Your task to perform on an android device: Open Google Chrome and open the bookmarks view Image 0: 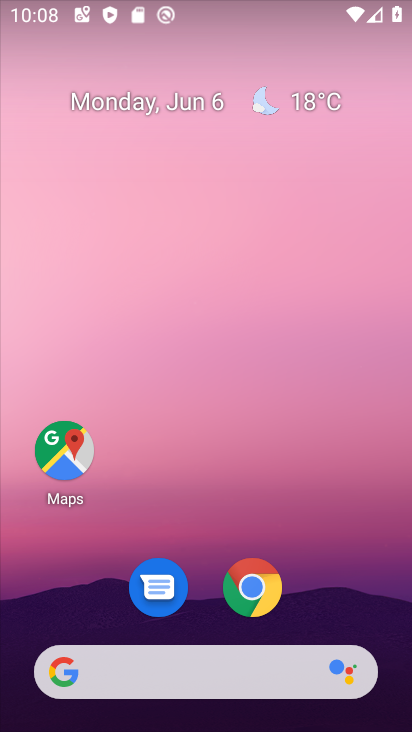
Step 0: click (274, 588)
Your task to perform on an android device: Open Google Chrome and open the bookmarks view Image 1: 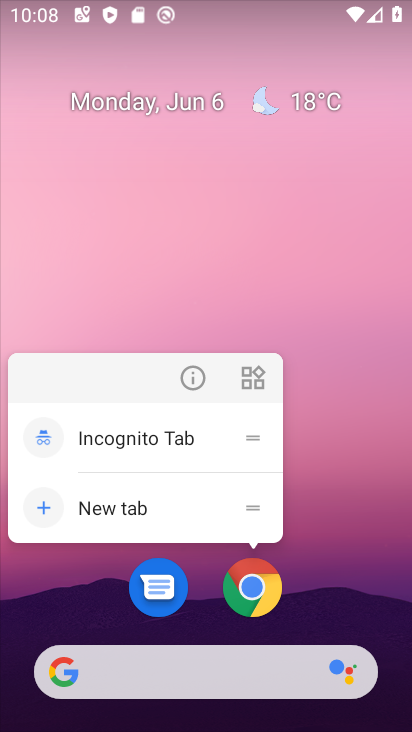
Step 1: click (253, 589)
Your task to perform on an android device: Open Google Chrome and open the bookmarks view Image 2: 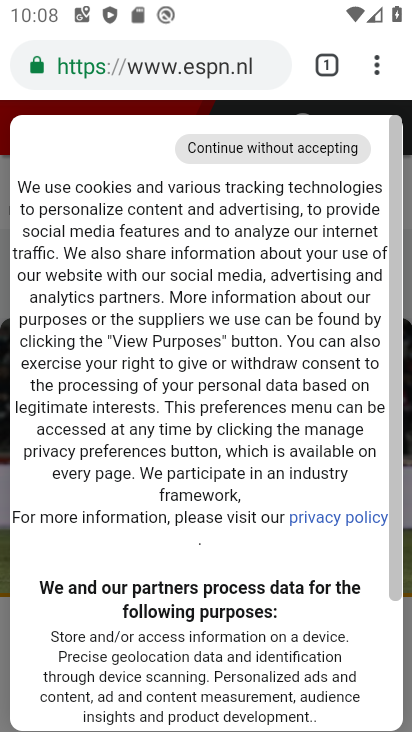
Step 2: click (378, 55)
Your task to perform on an android device: Open Google Chrome and open the bookmarks view Image 3: 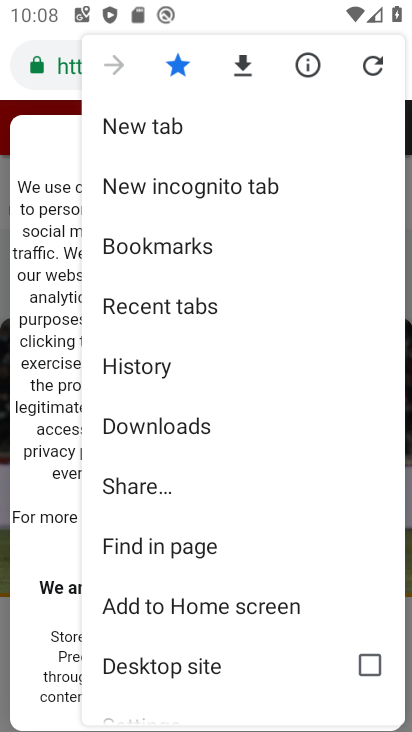
Step 3: click (179, 250)
Your task to perform on an android device: Open Google Chrome and open the bookmarks view Image 4: 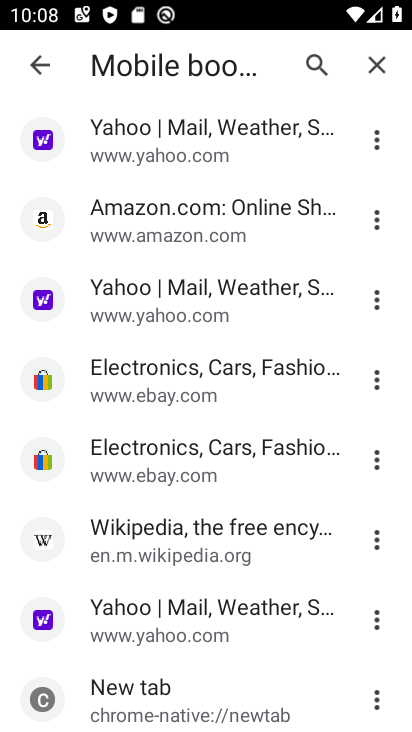
Step 4: task complete